Your task to perform on an android device: Show me popular videos on Youtube Image 0: 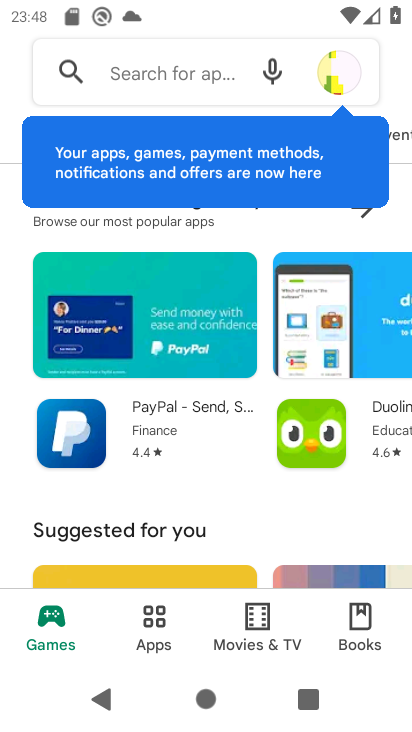
Step 0: press home button
Your task to perform on an android device: Show me popular videos on Youtube Image 1: 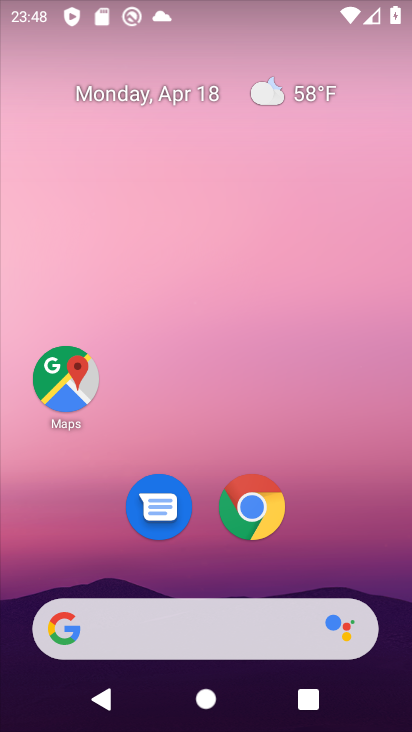
Step 1: drag from (206, 562) to (301, 111)
Your task to perform on an android device: Show me popular videos on Youtube Image 2: 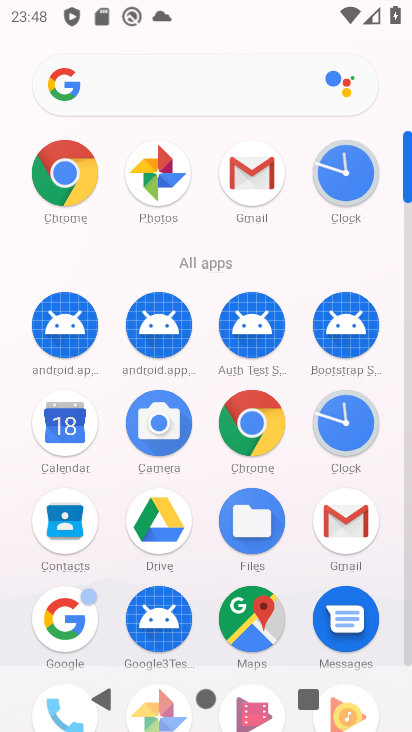
Step 2: drag from (299, 568) to (328, 182)
Your task to perform on an android device: Show me popular videos on Youtube Image 3: 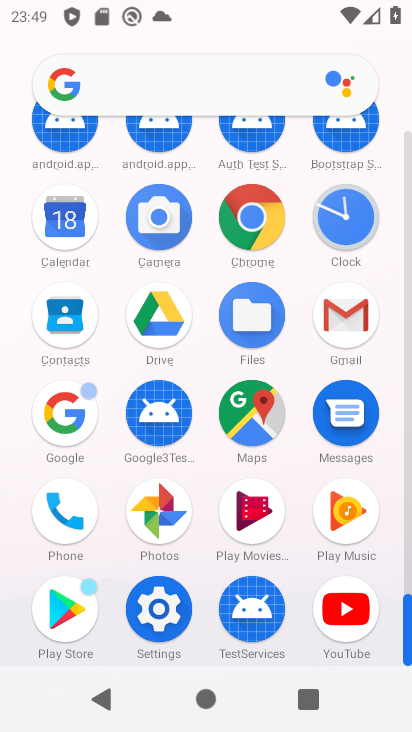
Step 3: click (344, 605)
Your task to perform on an android device: Show me popular videos on Youtube Image 4: 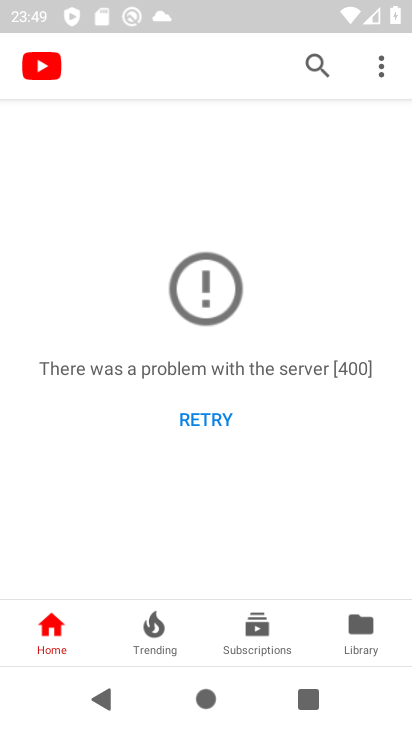
Step 4: click (156, 621)
Your task to perform on an android device: Show me popular videos on Youtube Image 5: 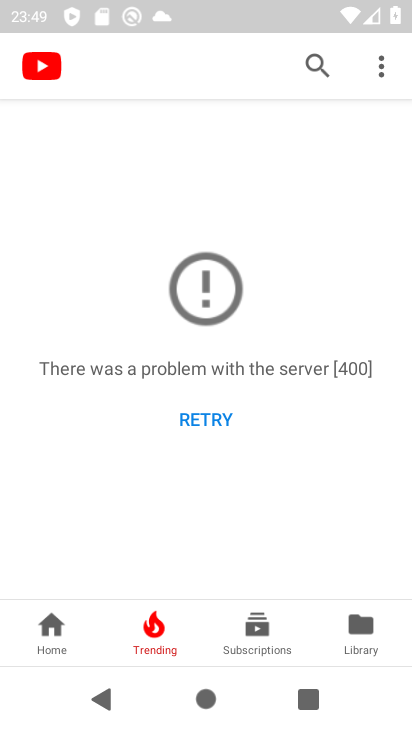
Step 5: task complete